Your task to perform on an android device: turn on the 24-hour format for clock Image 0: 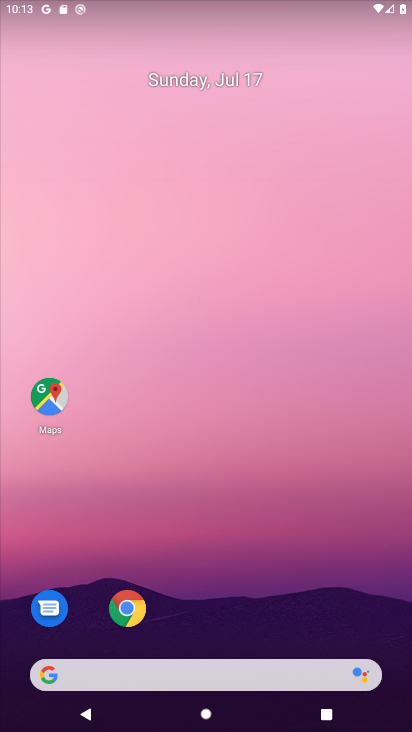
Step 0: drag from (282, 520) to (276, 209)
Your task to perform on an android device: turn on the 24-hour format for clock Image 1: 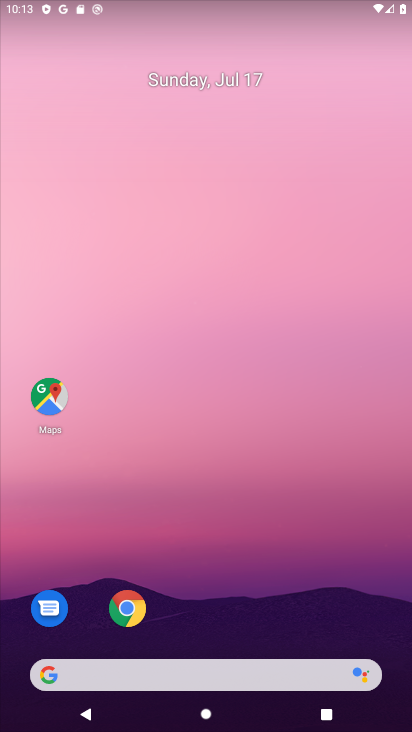
Step 1: drag from (384, 635) to (325, 189)
Your task to perform on an android device: turn on the 24-hour format for clock Image 2: 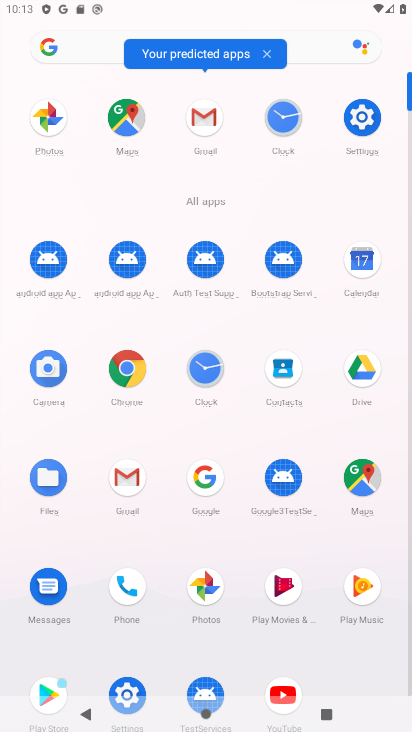
Step 2: click (291, 128)
Your task to perform on an android device: turn on the 24-hour format for clock Image 3: 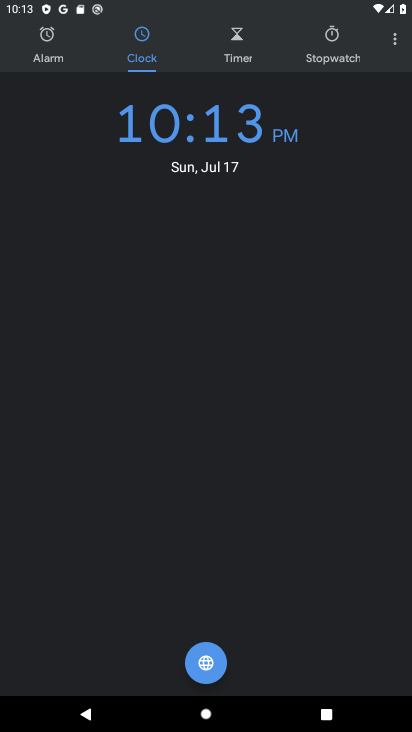
Step 3: click (396, 48)
Your task to perform on an android device: turn on the 24-hour format for clock Image 4: 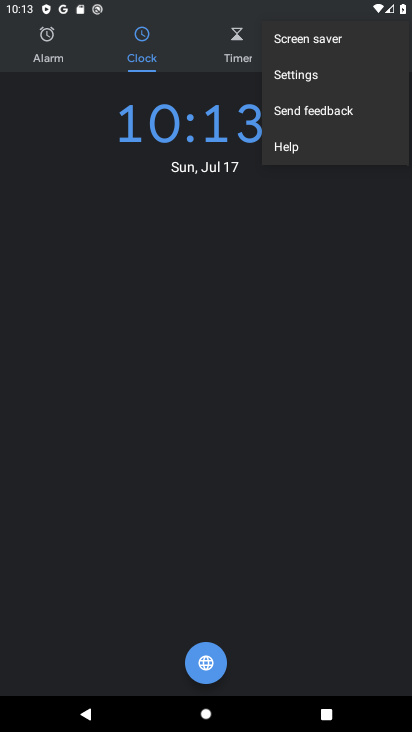
Step 4: click (330, 72)
Your task to perform on an android device: turn on the 24-hour format for clock Image 5: 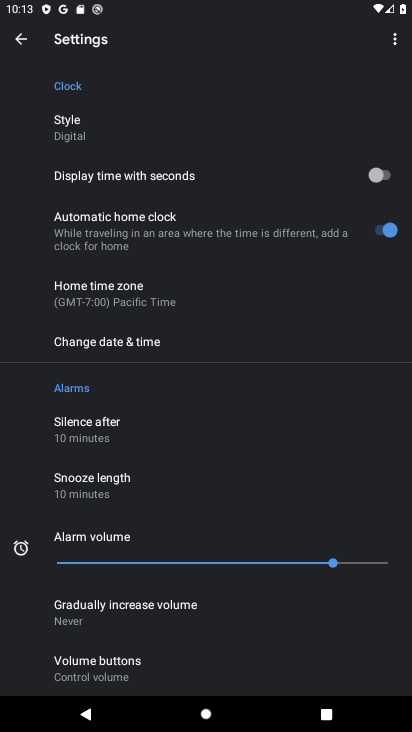
Step 5: click (192, 349)
Your task to perform on an android device: turn on the 24-hour format for clock Image 6: 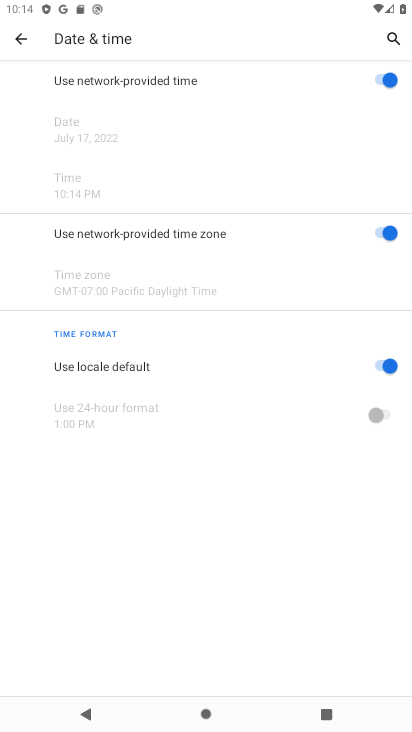
Step 6: click (388, 370)
Your task to perform on an android device: turn on the 24-hour format for clock Image 7: 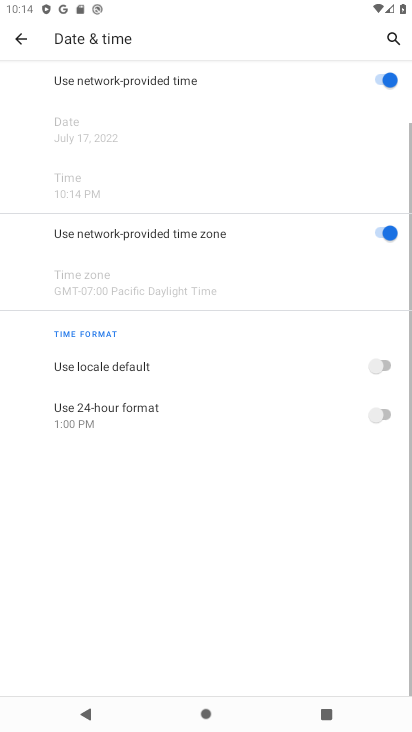
Step 7: click (379, 415)
Your task to perform on an android device: turn on the 24-hour format for clock Image 8: 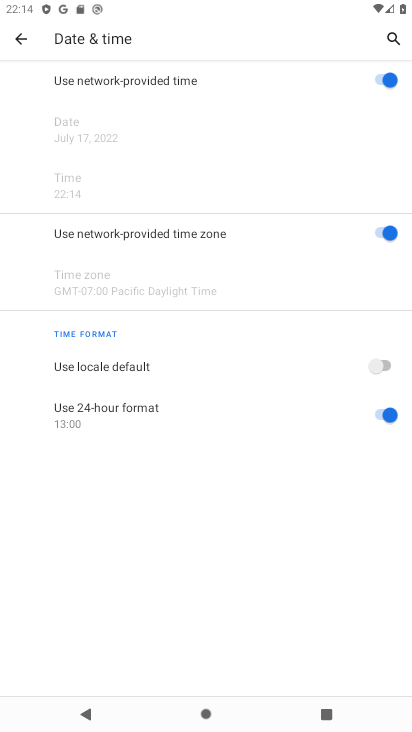
Step 8: task complete